Your task to perform on an android device: delete a single message in the gmail app Image 0: 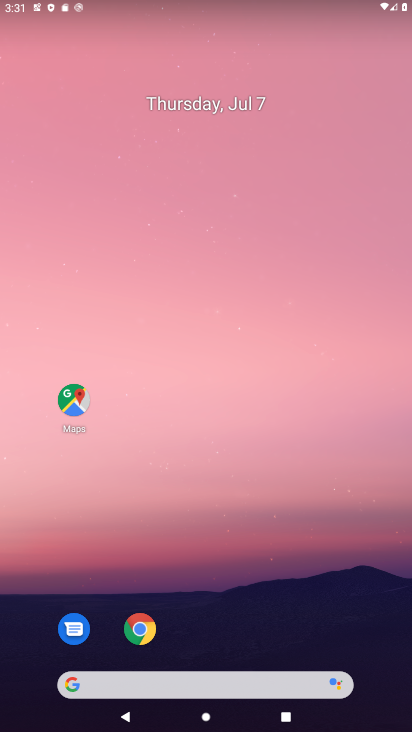
Step 0: drag from (255, 623) to (200, 177)
Your task to perform on an android device: delete a single message in the gmail app Image 1: 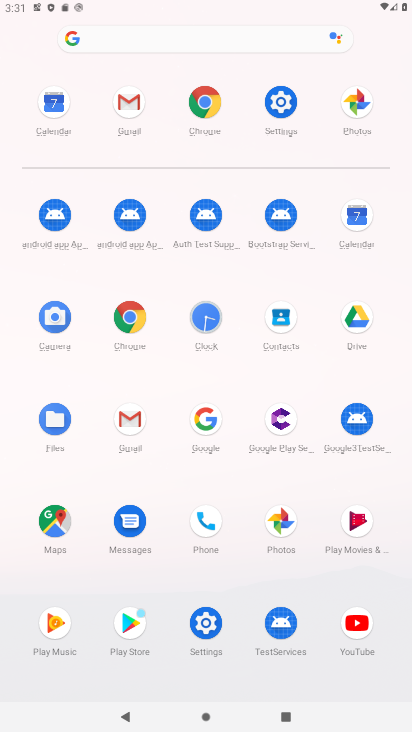
Step 1: click (126, 411)
Your task to perform on an android device: delete a single message in the gmail app Image 2: 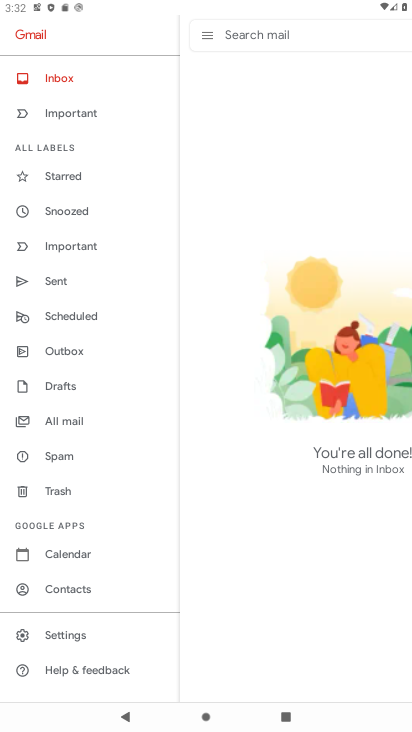
Step 2: click (81, 418)
Your task to perform on an android device: delete a single message in the gmail app Image 3: 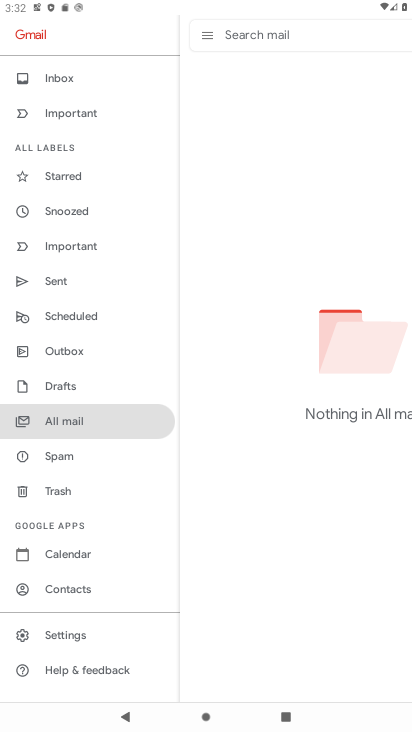
Step 3: click (261, 270)
Your task to perform on an android device: delete a single message in the gmail app Image 4: 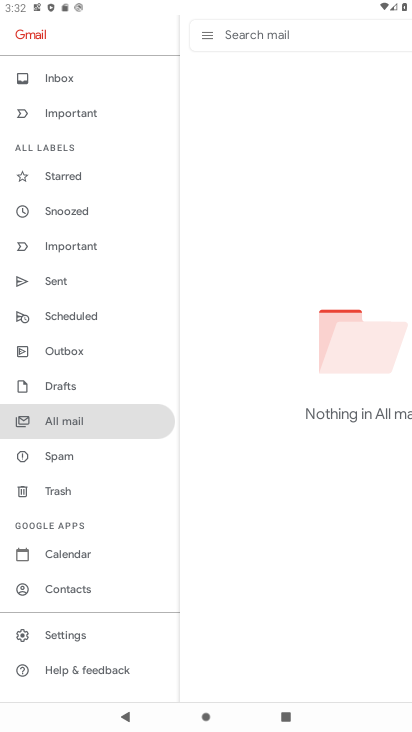
Step 4: task complete